Your task to perform on an android device: turn smart compose on in the gmail app Image 0: 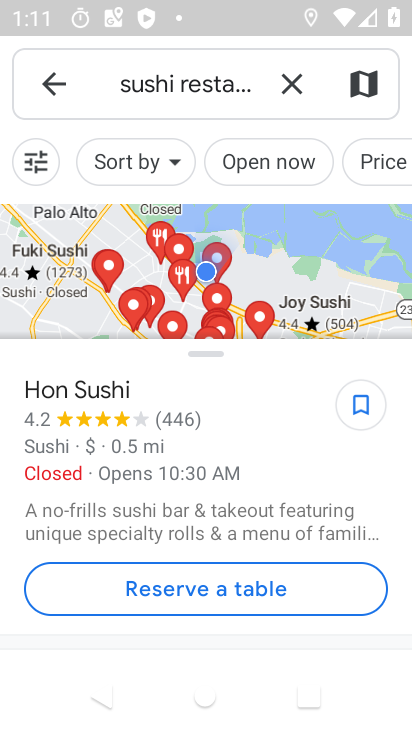
Step 0: press home button
Your task to perform on an android device: turn smart compose on in the gmail app Image 1: 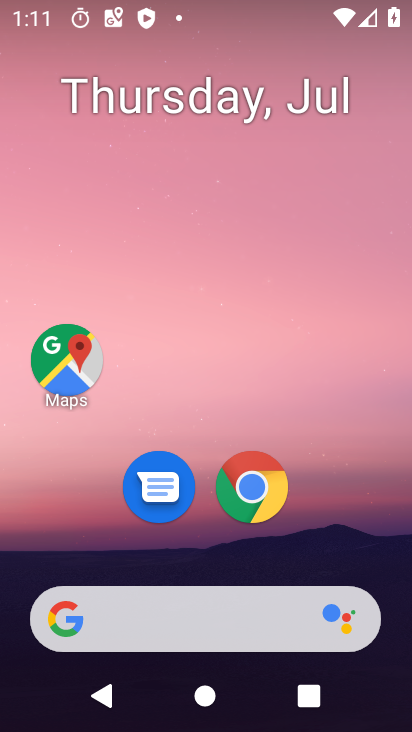
Step 1: drag from (254, 704) to (350, 197)
Your task to perform on an android device: turn smart compose on in the gmail app Image 2: 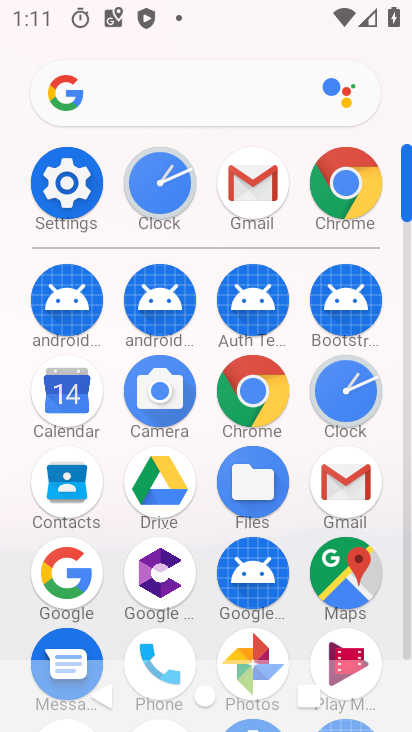
Step 2: click (343, 495)
Your task to perform on an android device: turn smart compose on in the gmail app Image 3: 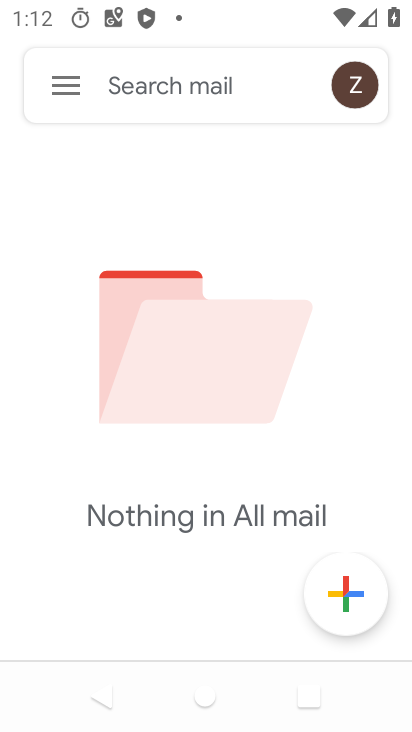
Step 3: click (59, 86)
Your task to perform on an android device: turn smart compose on in the gmail app Image 4: 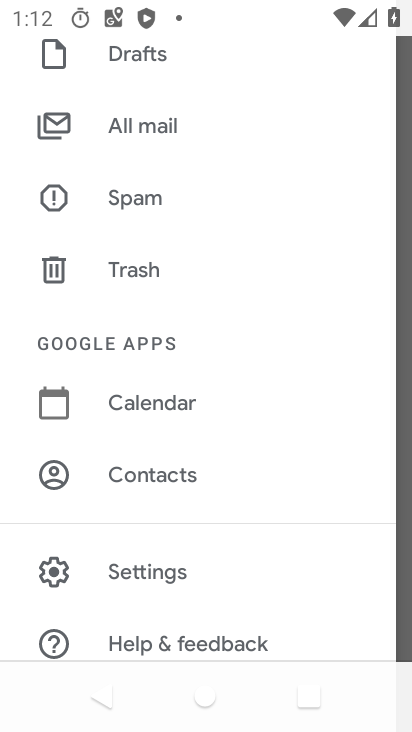
Step 4: click (155, 572)
Your task to perform on an android device: turn smart compose on in the gmail app Image 5: 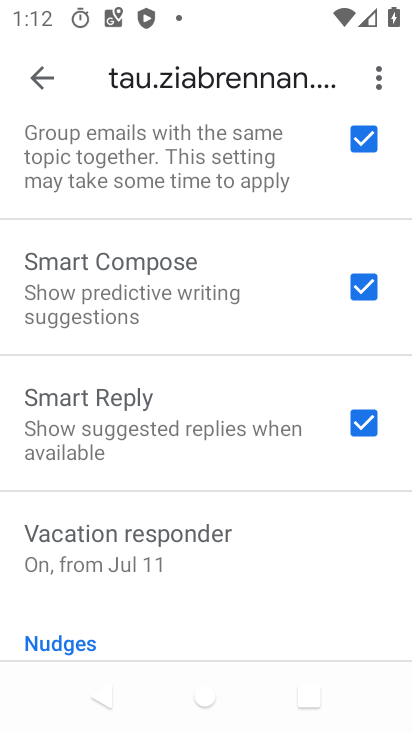
Step 5: task complete